Your task to perform on an android device: open chrome privacy settings Image 0: 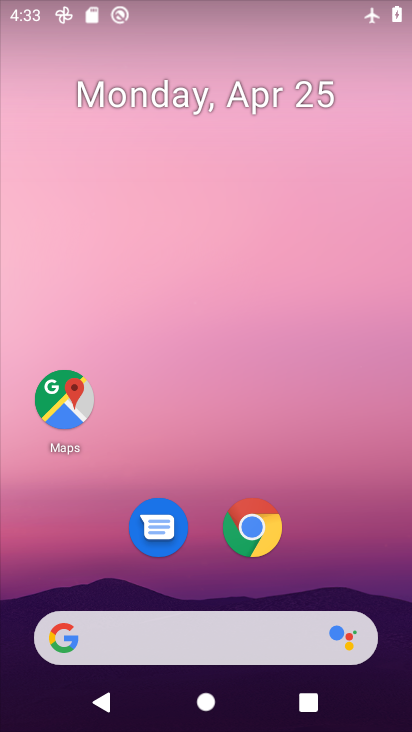
Step 0: click (252, 523)
Your task to perform on an android device: open chrome privacy settings Image 1: 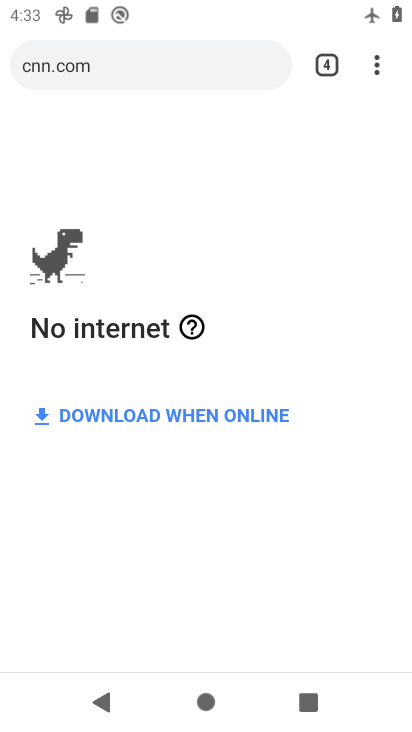
Step 1: click (374, 71)
Your task to perform on an android device: open chrome privacy settings Image 2: 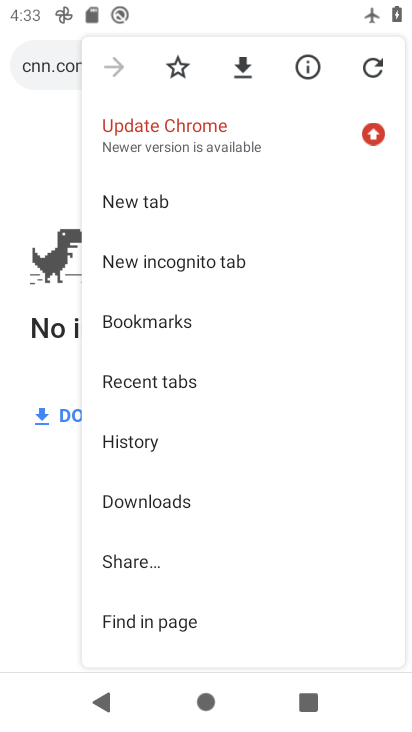
Step 2: drag from (240, 591) to (285, 208)
Your task to perform on an android device: open chrome privacy settings Image 3: 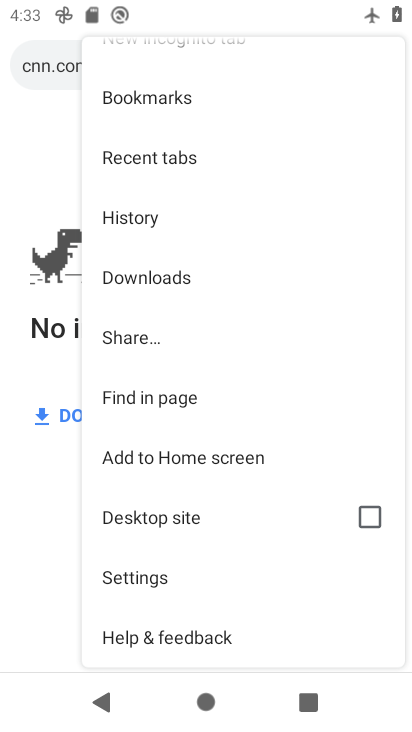
Step 3: click (134, 586)
Your task to perform on an android device: open chrome privacy settings Image 4: 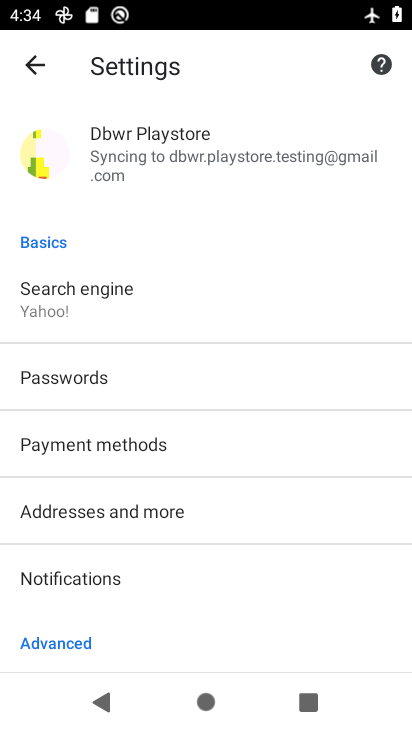
Step 4: drag from (237, 550) to (264, 123)
Your task to perform on an android device: open chrome privacy settings Image 5: 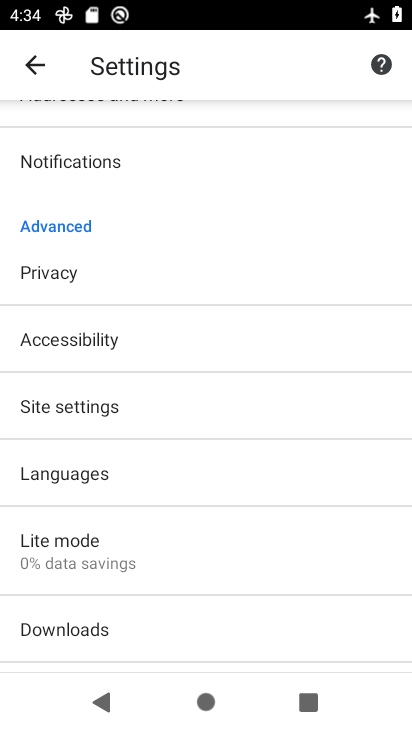
Step 5: click (58, 265)
Your task to perform on an android device: open chrome privacy settings Image 6: 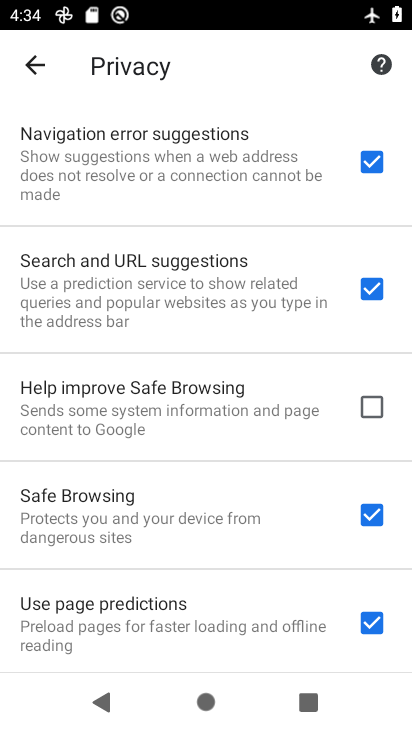
Step 6: task complete